Your task to perform on an android device: What is the news today? Image 0: 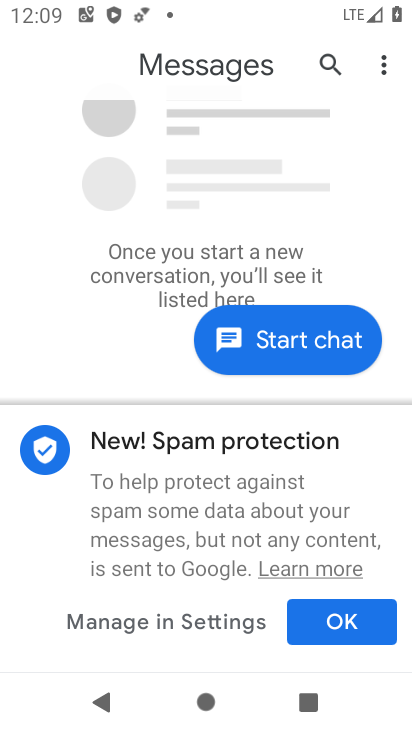
Step 0: press home button
Your task to perform on an android device: What is the news today? Image 1: 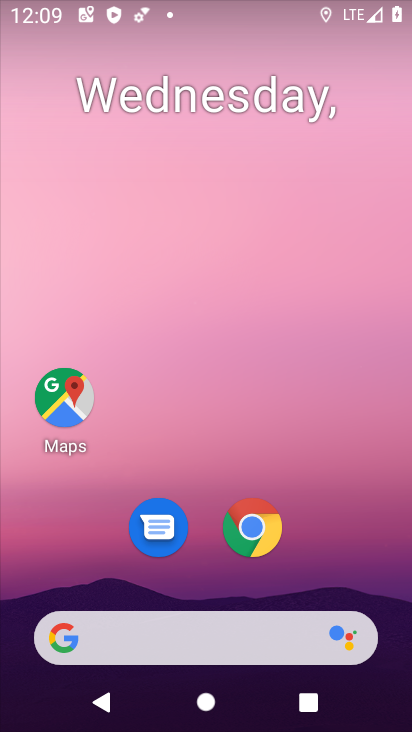
Step 1: drag from (255, 570) to (268, 75)
Your task to perform on an android device: What is the news today? Image 2: 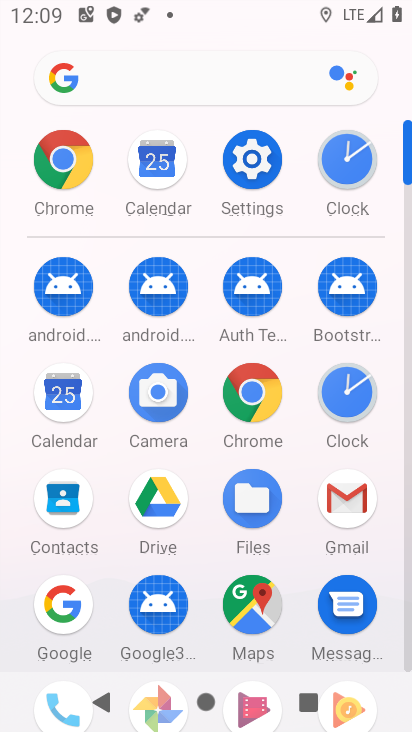
Step 2: click (276, 400)
Your task to perform on an android device: What is the news today? Image 3: 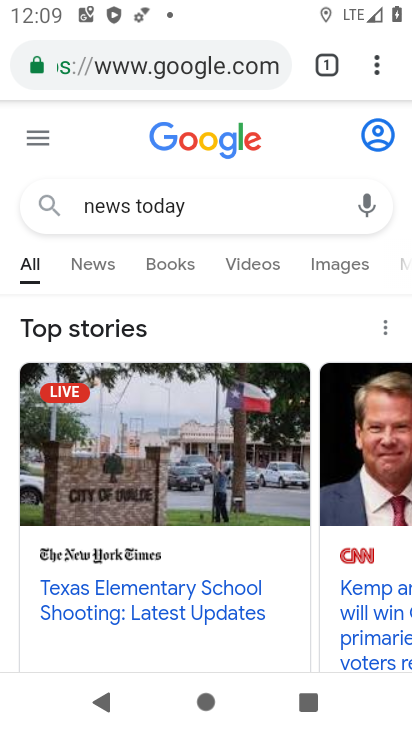
Step 3: click (220, 84)
Your task to perform on an android device: What is the news today? Image 4: 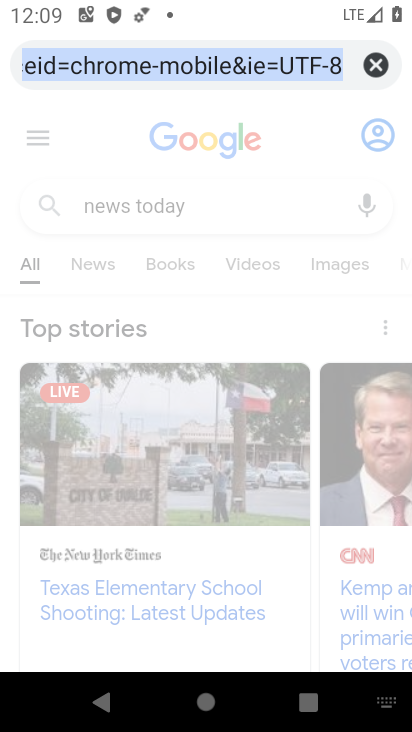
Step 4: type "news today"
Your task to perform on an android device: What is the news today? Image 5: 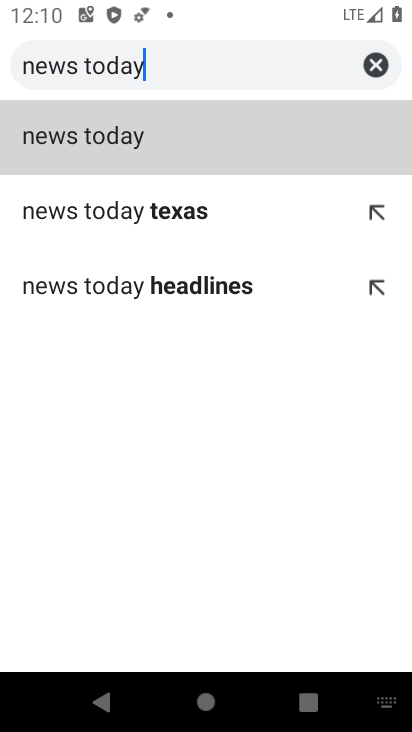
Step 5: click (149, 145)
Your task to perform on an android device: What is the news today? Image 6: 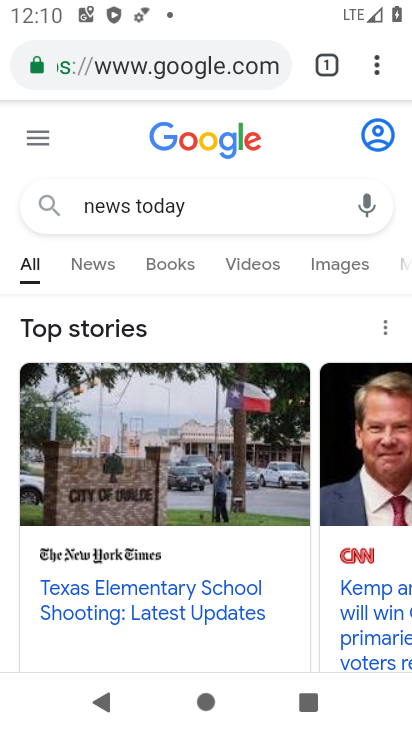
Step 6: task complete